Your task to perform on an android device: see sites visited before in the chrome app Image 0: 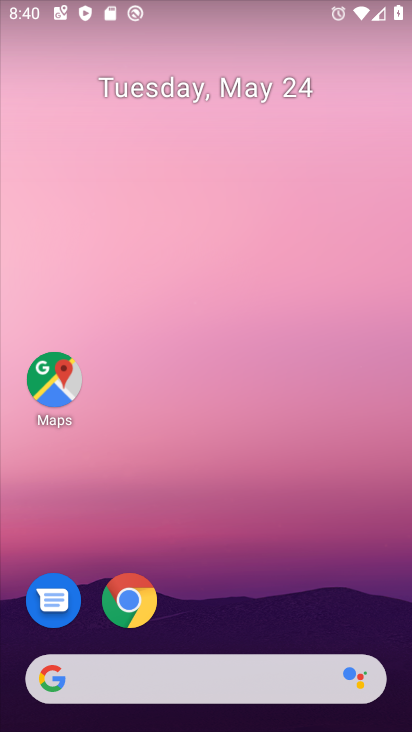
Step 0: drag from (181, 722) to (127, 125)
Your task to perform on an android device: see sites visited before in the chrome app Image 1: 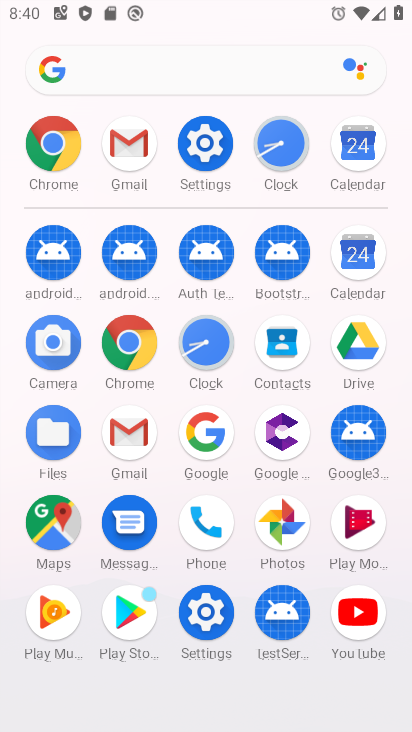
Step 1: click (126, 349)
Your task to perform on an android device: see sites visited before in the chrome app Image 2: 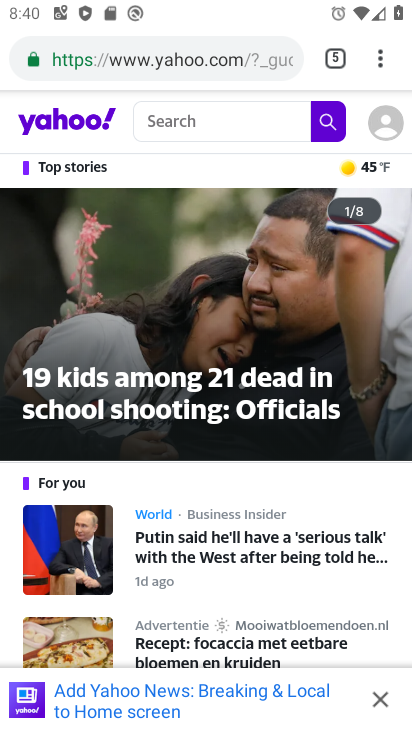
Step 2: click (381, 65)
Your task to perform on an android device: see sites visited before in the chrome app Image 3: 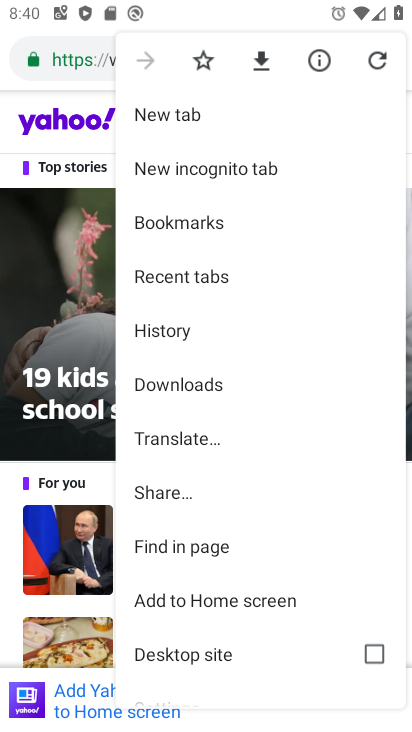
Step 3: click (162, 326)
Your task to perform on an android device: see sites visited before in the chrome app Image 4: 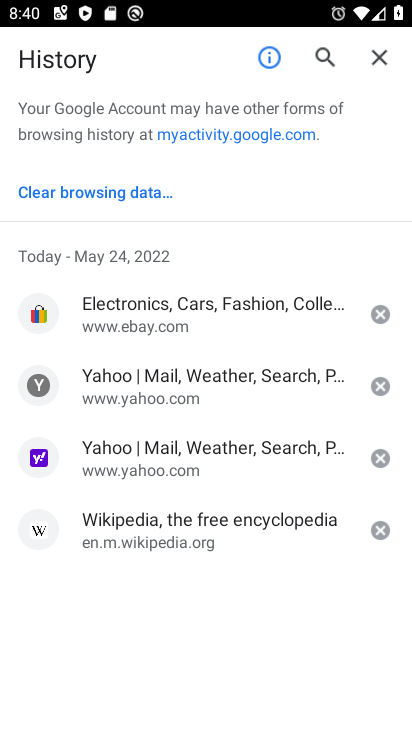
Step 4: task complete